Your task to perform on an android device: Open Wikipedia Image 0: 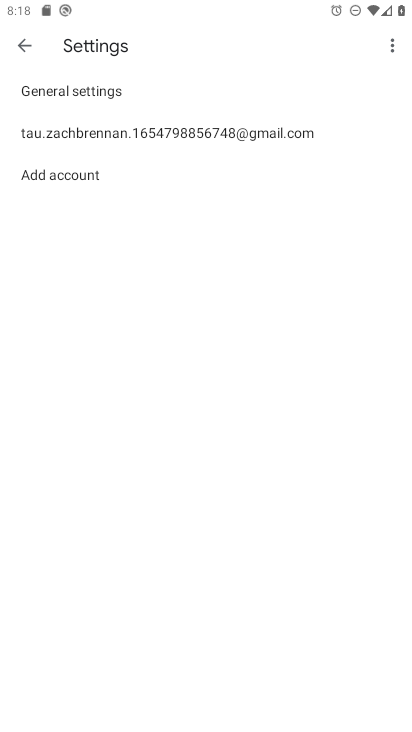
Step 0: press home button
Your task to perform on an android device: Open Wikipedia Image 1: 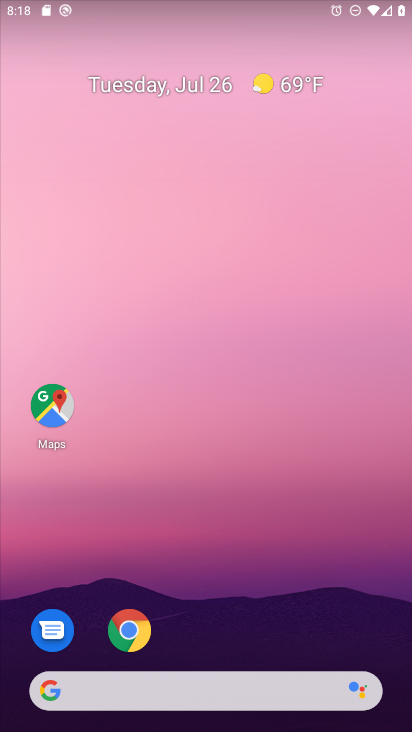
Step 1: drag from (215, 583) to (243, 118)
Your task to perform on an android device: Open Wikipedia Image 2: 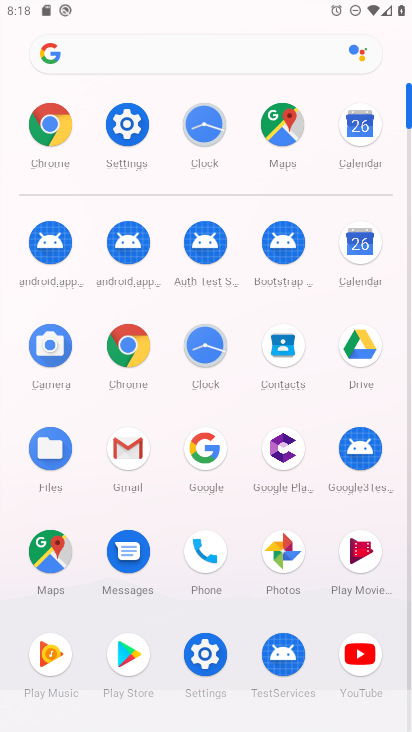
Step 2: click (135, 356)
Your task to perform on an android device: Open Wikipedia Image 3: 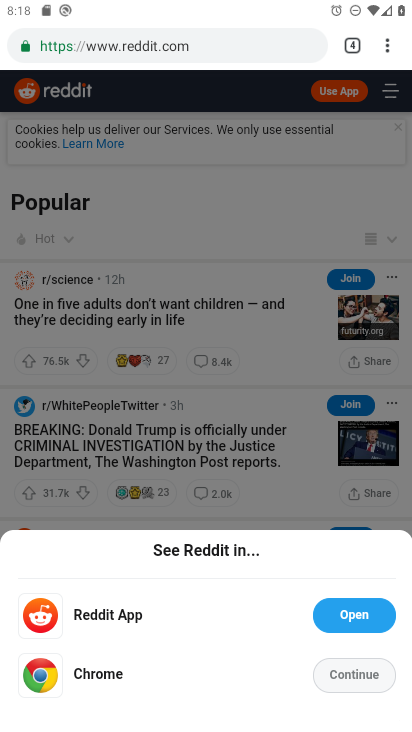
Step 3: click (353, 53)
Your task to perform on an android device: Open Wikipedia Image 4: 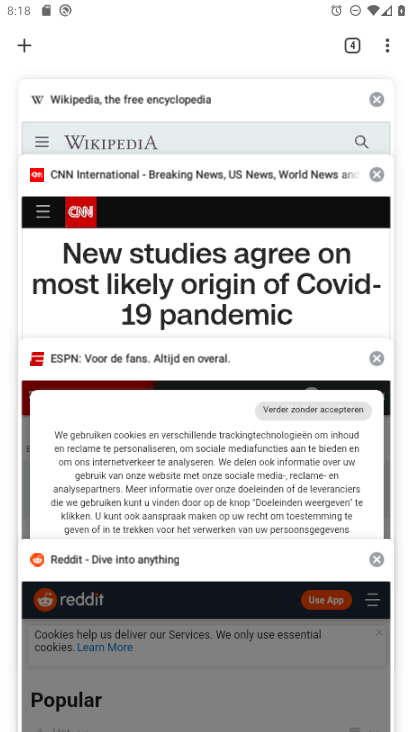
Step 4: click (129, 136)
Your task to perform on an android device: Open Wikipedia Image 5: 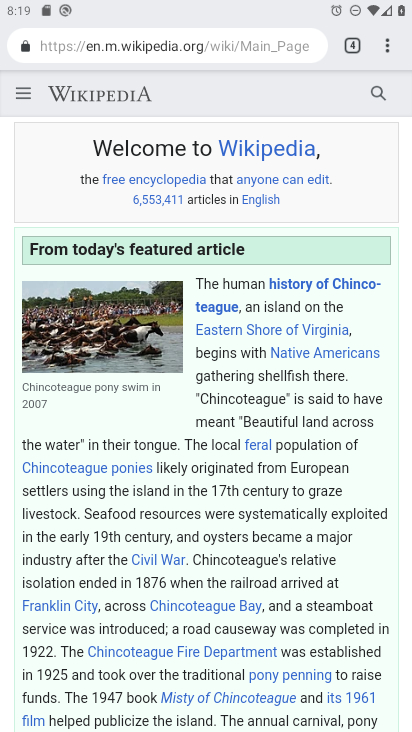
Step 5: task complete